Your task to perform on an android device: turn on bluetooth scan Image 0: 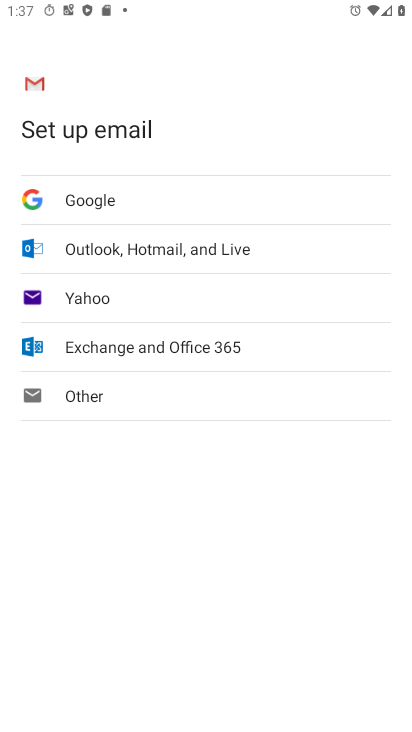
Step 0: press home button
Your task to perform on an android device: turn on bluetooth scan Image 1: 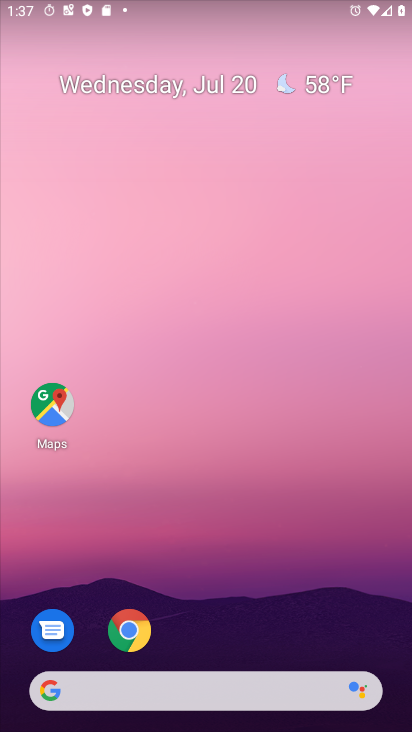
Step 1: drag from (186, 698) to (316, 136)
Your task to perform on an android device: turn on bluetooth scan Image 2: 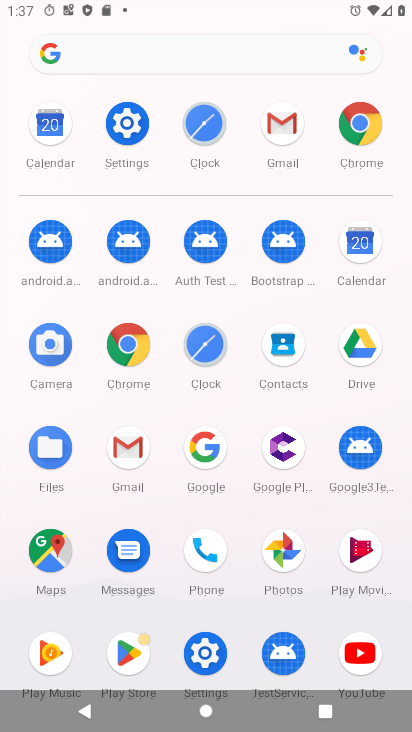
Step 2: click (119, 119)
Your task to perform on an android device: turn on bluetooth scan Image 3: 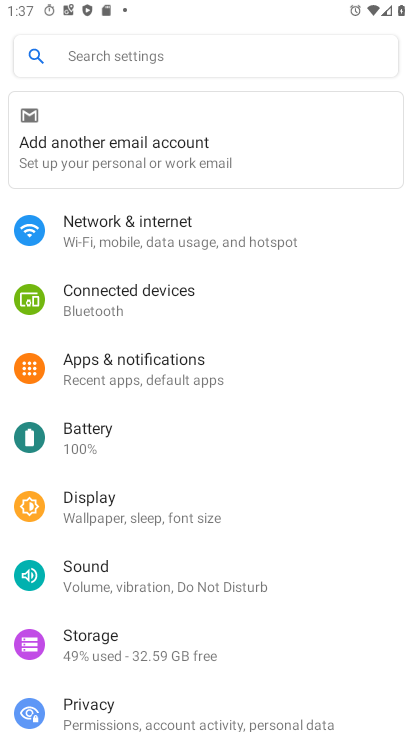
Step 3: drag from (278, 447) to (338, 195)
Your task to perform on an android device: turn on bluetooth scan Image 4: 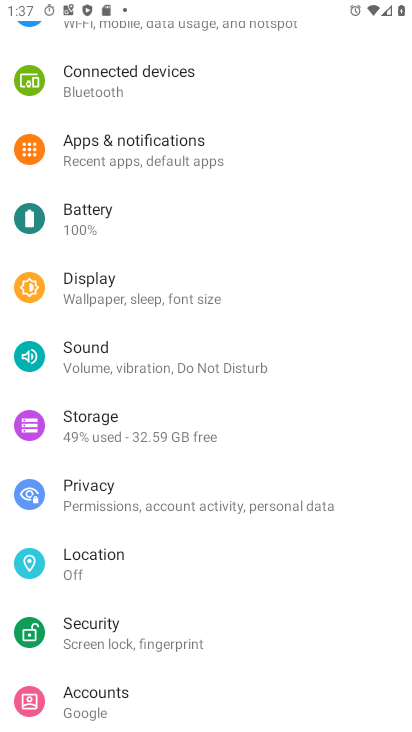
Step 4: click (106, 561)
Your task to perform on an android device: turn on bluetooth scan Image 5: 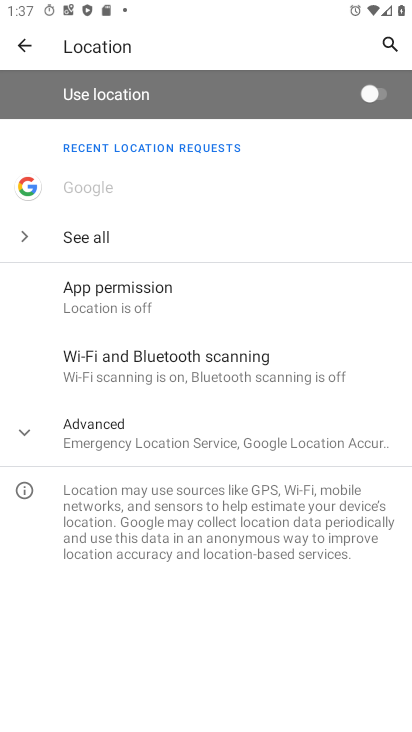
Step 5: click (166, 369)
Your task to perform on an android device: turn on bluetooth scan Image 6: 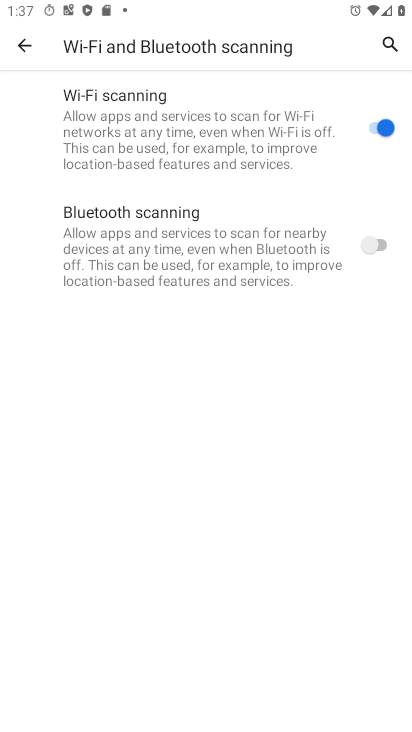
Step 6: click (377, 241)
Your task to perform on an android device: turn on bluetooth scan Image 7: 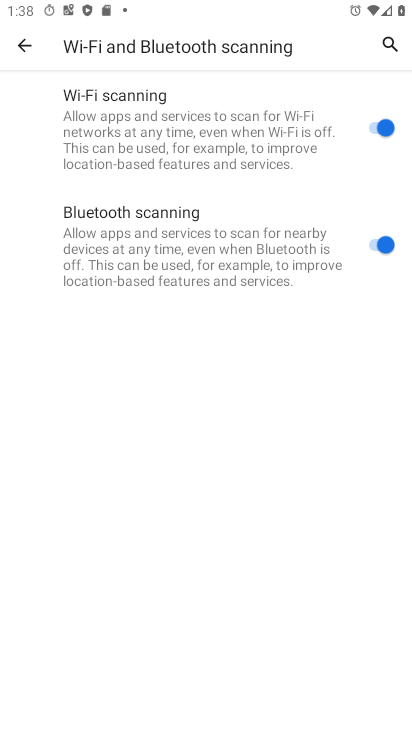
Step 7: task complete